Your task to perform on an android device: turn off smart reply in the gmail app Image 0: 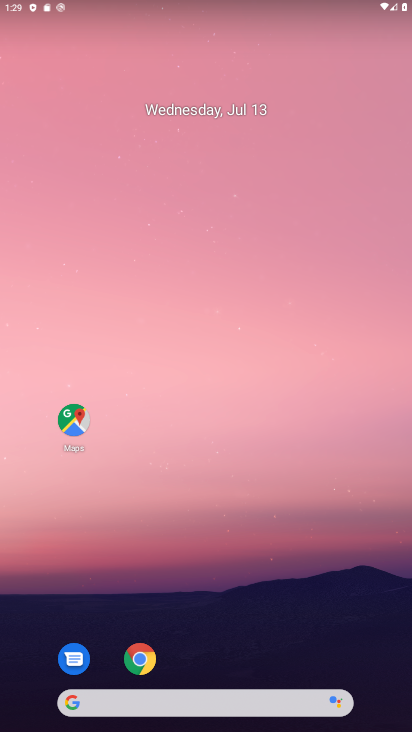
Step 0: drag from (385, 689) to (277, 19)
Your task to perform on an android device: turn off smart reply in the gmail app Image 1: 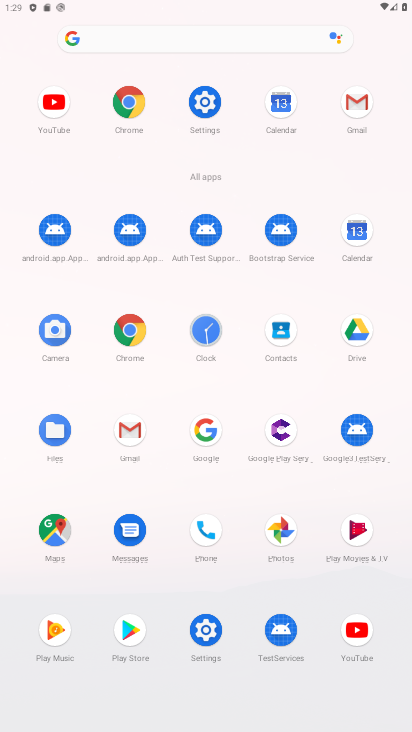
Step 1: click (129, 429)
Your task to perform on an android device: turn off smart reply in the gmail app Image 2: 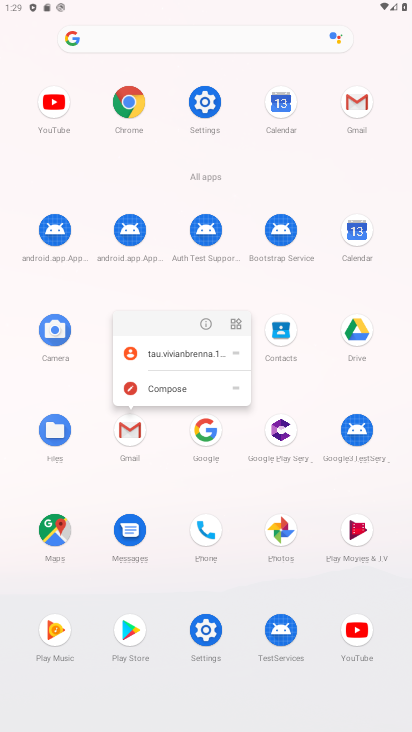
Step 2: click (128, 428)
Your task to perform on an android device: turn off smart reply in the gmail app Image 3: 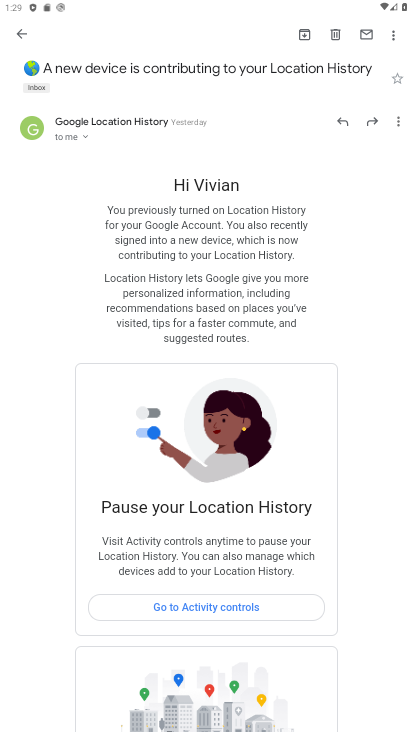
Step 3: press back button
Your task to perform on an android device: turn off smart reply in the gmail app Image 4: 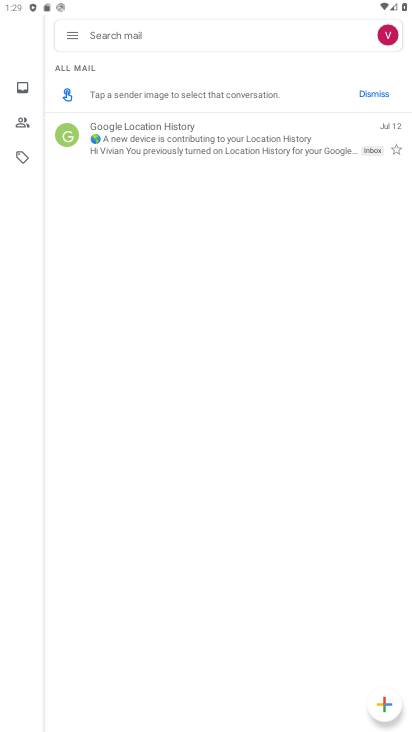
Step 4: click (68, 37)
Your task to perform on an android device: turn off smart reply in the gmail app Image 5: 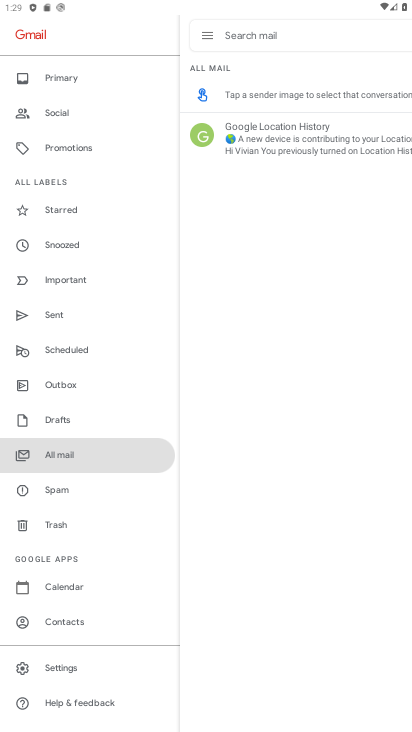
Step 5: click (62, 665)
Your task to perform on an android device: turn off smart reply in the gmail app Image 6: 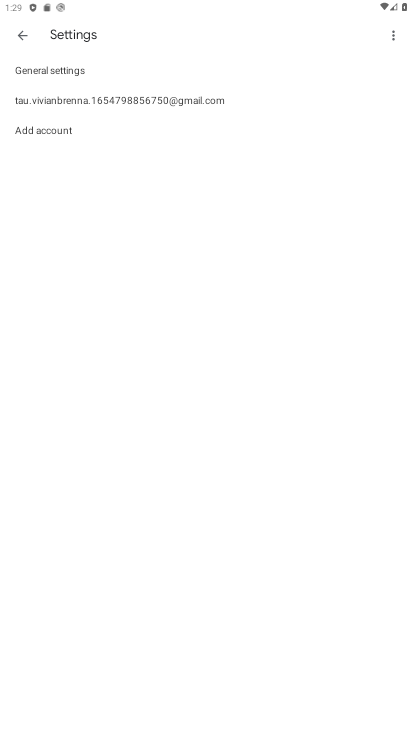
Step 6: click (107, 102)
Your task to perform on an android device: turn off smart reply in the gmail app Image 7: 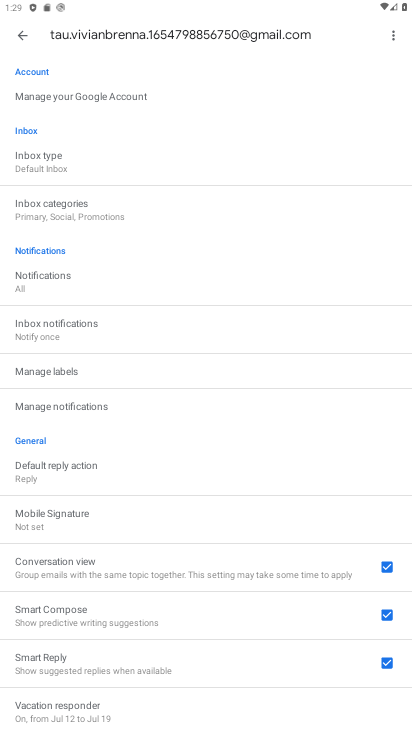
Step 7: drag from (258, 549) to (260, 259)
Your task to perform on an android device: turn off smart reply in the gmail app Image 8: 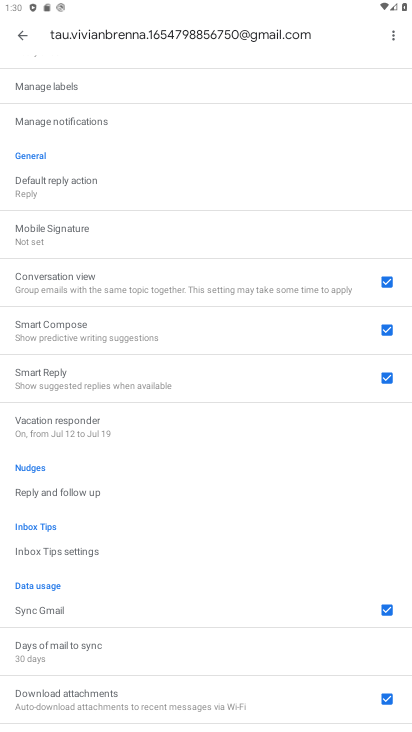
Step 8: click (385, 377)
Your task to perform on an android device: turn off smart reply in the gmail app Image 9: 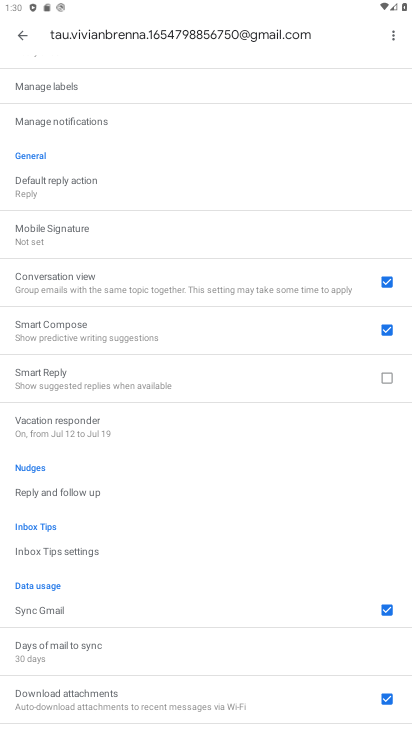
Step 9: task complete